Your task to perform on an android device: Open Google Chrome Image 0: 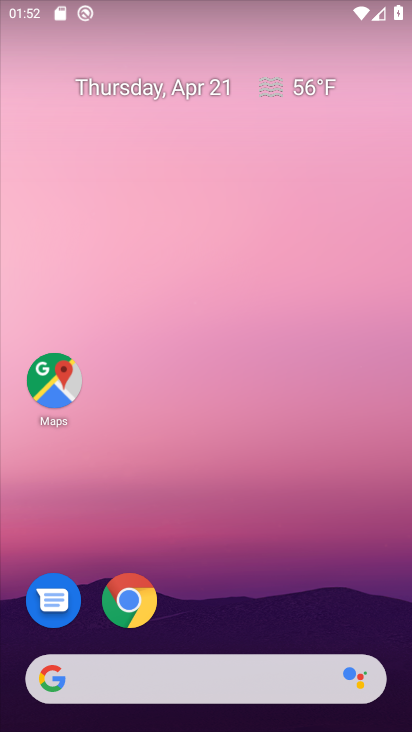
Step 0: click (138, 594)
Your task to perform on an android device: Open Google Chrome Image 1: 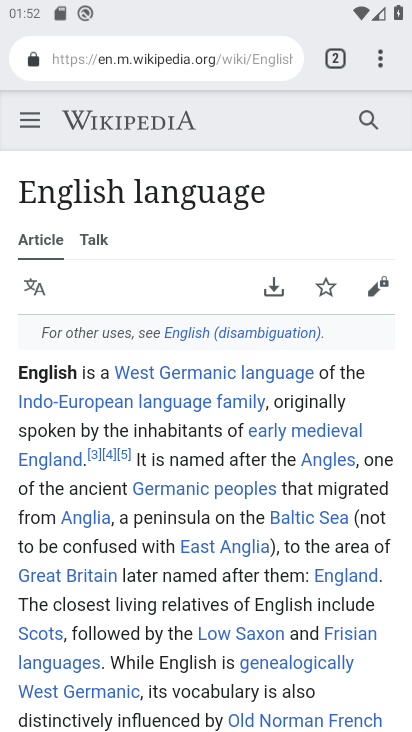
Step 1: task complete